Your task to perform on an android device: Go to Android settings Image 0: 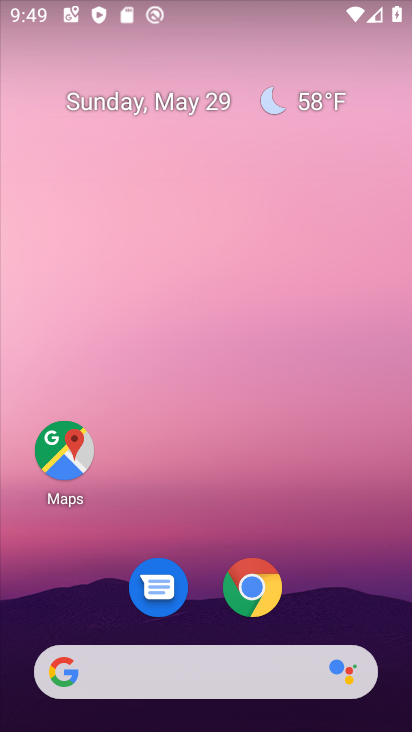
Step 0: drag from (369, 579) to (313, 107)
Your task to perform on an android device: Go to Android settings Image 1: 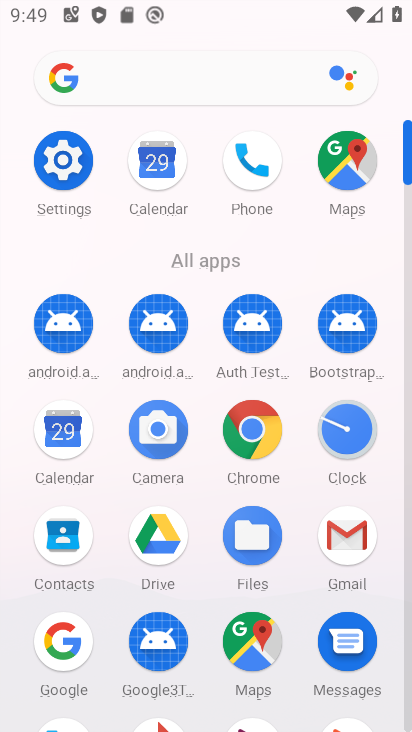
Step 1: click (67, 167)
Your task to perform on an android device: Go to Android settings Image 2: 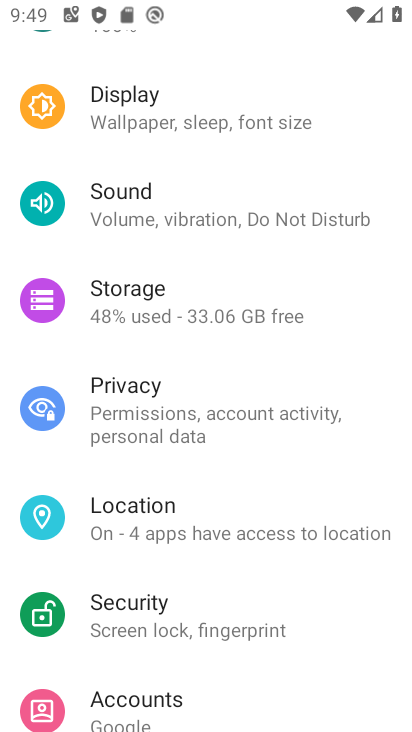
Step 2: task complete